Your task to perform on an android device: find photos in the google photos app Image 0: 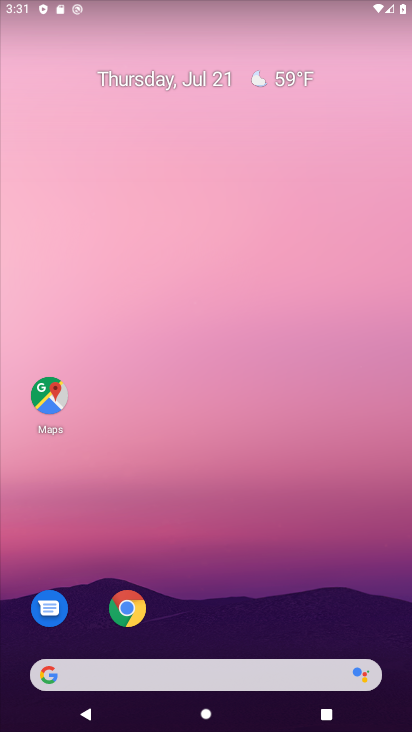
Step 0: drag from (270, 648) to (325, 23)
Your task to perform on an android device: find photos in the google photos app Image 1: 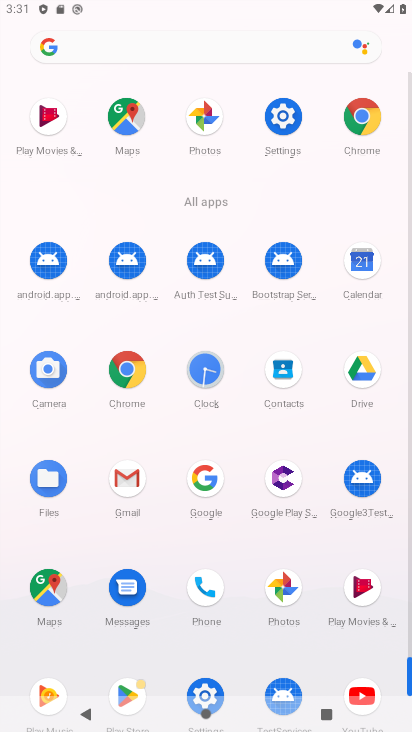
Step 1: click (280, 585)
Your task to perform on an android device: find photos in the google photos app Image 2: 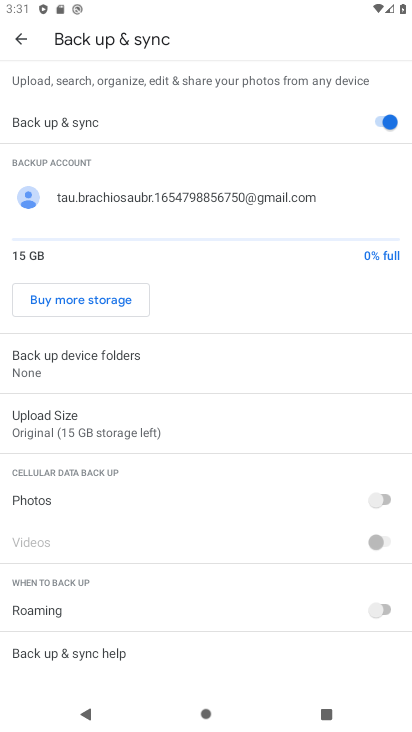
Step 2: task complete